Your task to perform on an android device: Go to notification settings Image 0: 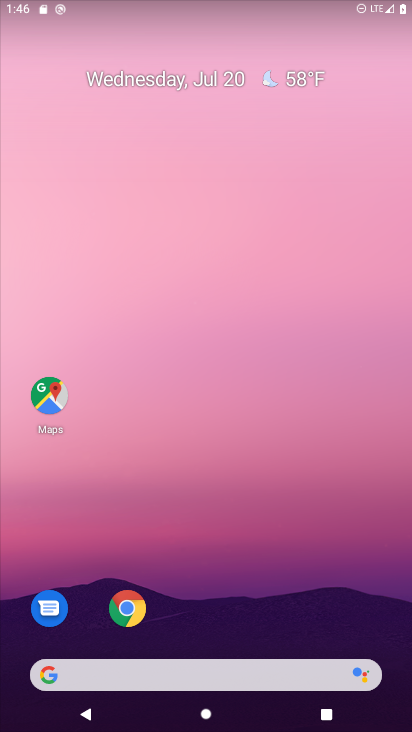
Step 0: drag from (232, 653) to (229, 235)
Your task to perform on an android device: Go to notification settings Image 1: 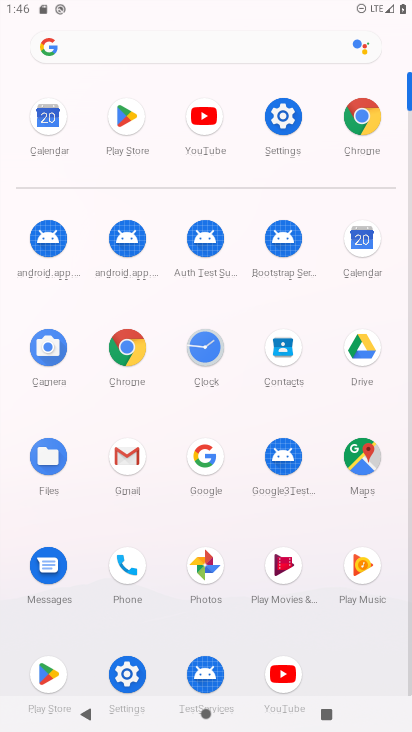
Step 1: click (286, 122)
Your task to perform on an android device: Go to notification settings Image 2: 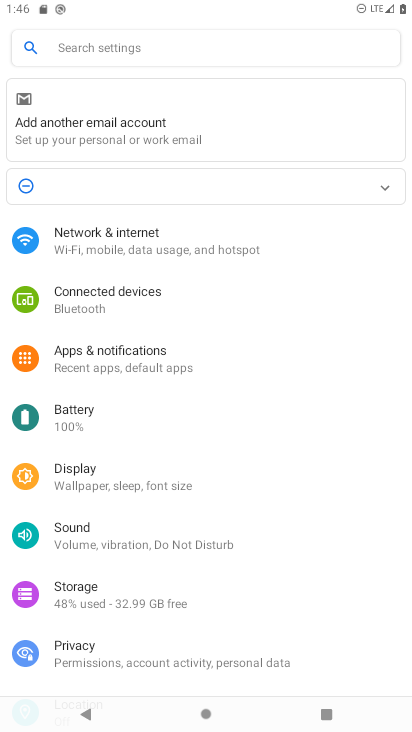
Step 2: click (106, 361)
Your task to perform on an android device: Go to notification settings Image 3: 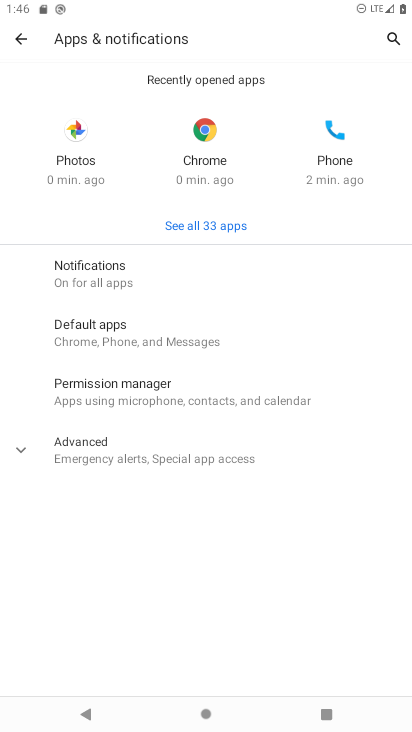
Step 3: click (105, 272)
Your task to perform on an android device: Go to notification settings Image 4: 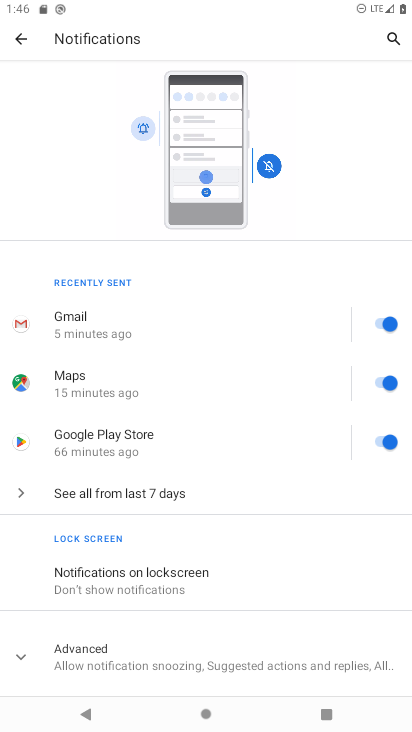
Step 4: task complete